Your task to perform on an android device: Go to settings Image 0: 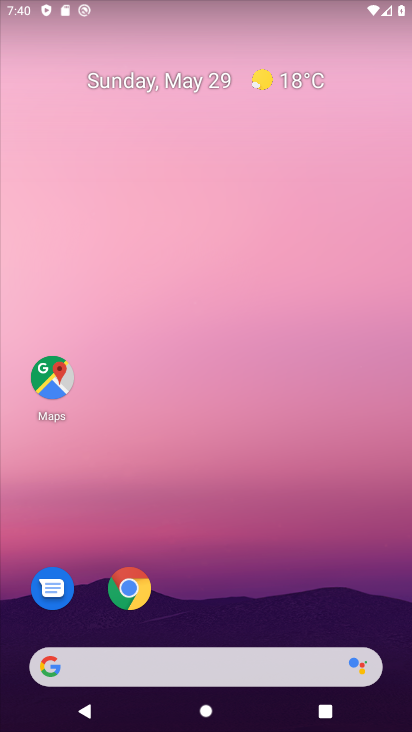
Step 0: drag from (209, 579) to (274, 80)
Your task to perform on an android device: Go to settings Image 1: 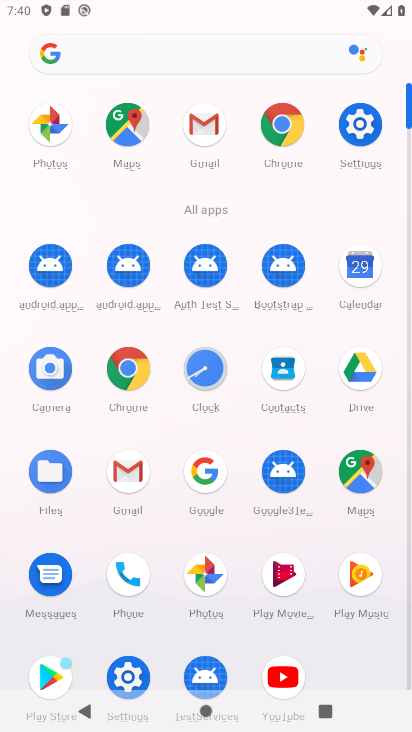
Step 1: click (358, 125)
Your task to perform on an android device: Go to settings Image 2: 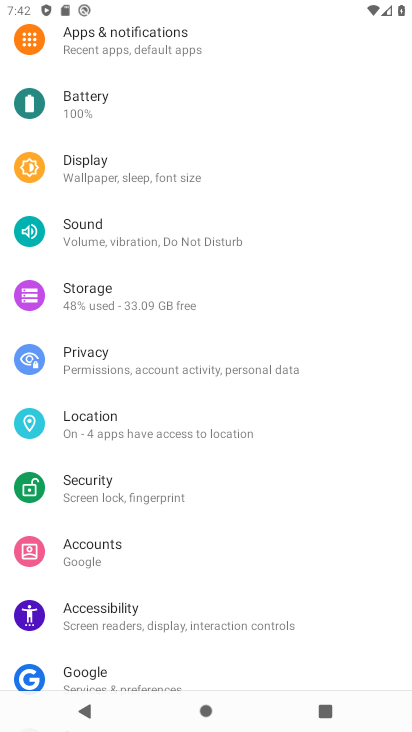
Step 2: task complete